Your task to perform on an android device: toggle javascript in the chrome app Image 0: 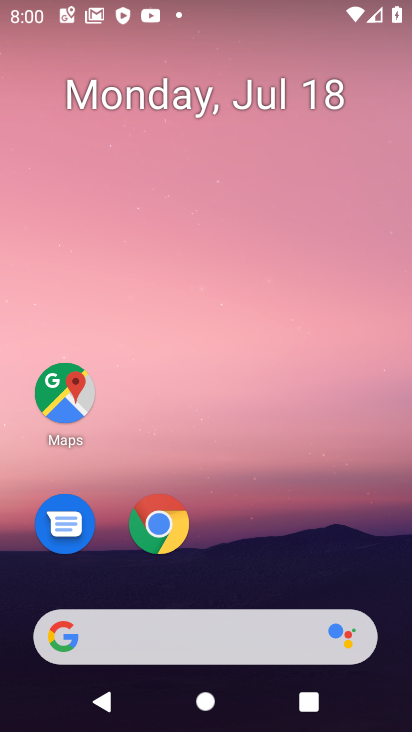
Step 0: click (169, 521)
Your task to perform on an android device: toggle javascript in the chrome app Image 1: 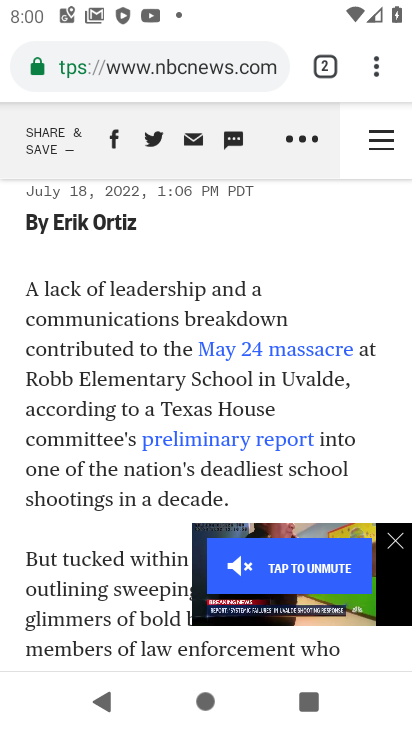
Step 1: click (376, 69)
Your task to perform on an android device: toggle javascript in the chrome app Image 2: 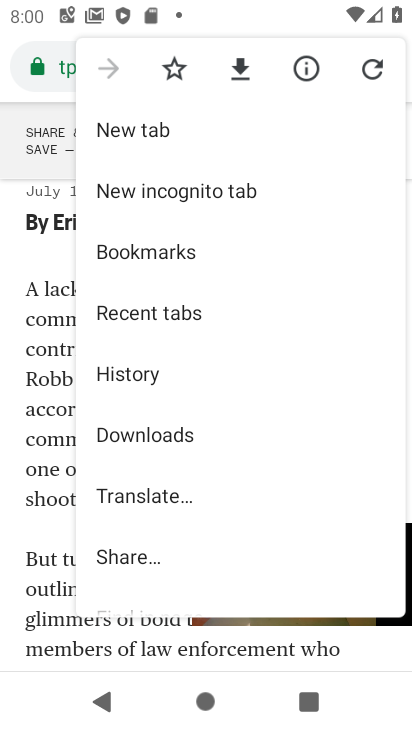
Step 2: drag from (226, 395) to (229, 193)
Your task to perform on an android device: toggle javascript in the chrome app Image 3: 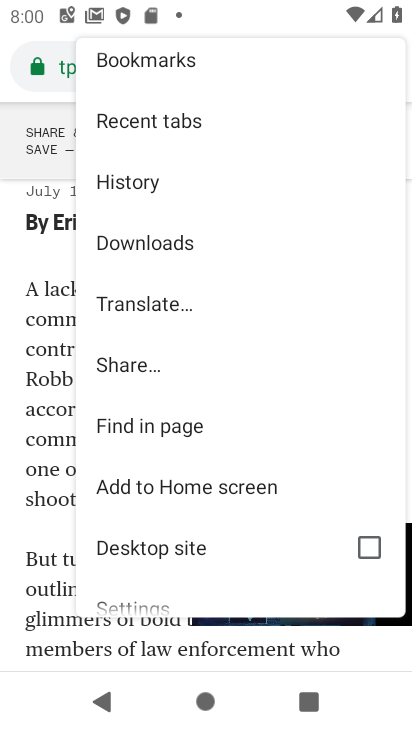
Step 3: drag from (223, 451) to (232, 207)
Your task to perform on an android device: toggle javascript in the chrome app Image 4: 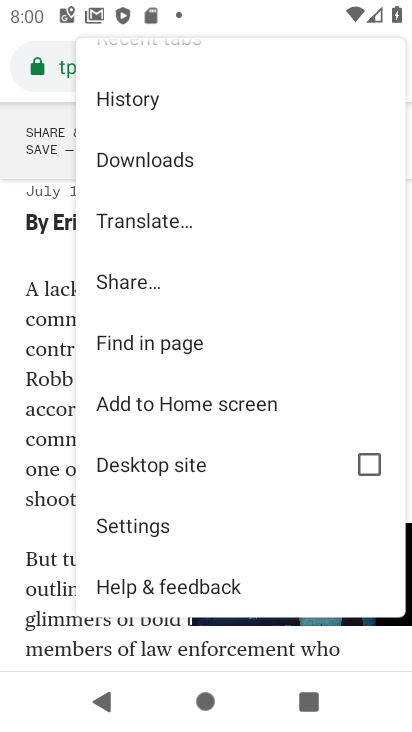
Step 4: click (156, 531)
Your task to perform on an android device: toggle javascript in the chrome app Image 5: 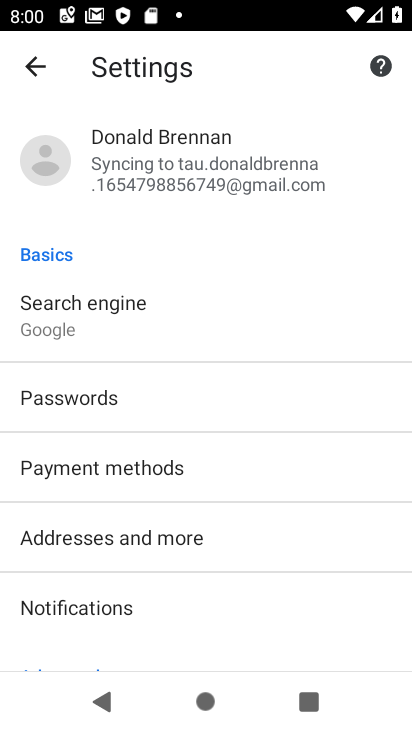
Step 5: drag from (229, 473) to (252, 226)
Your task to perform on an android device: toggle javascript in the chrome app Image 6: 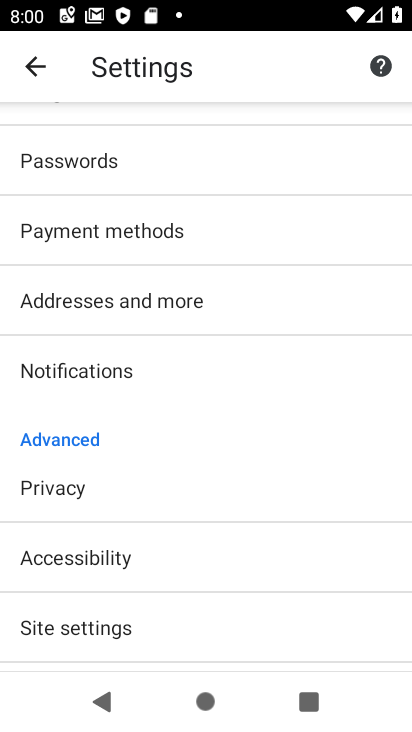
Step 6: click (133, 621)
Your task to perform on an android device: toggle javascript in the chrome app Image 7: 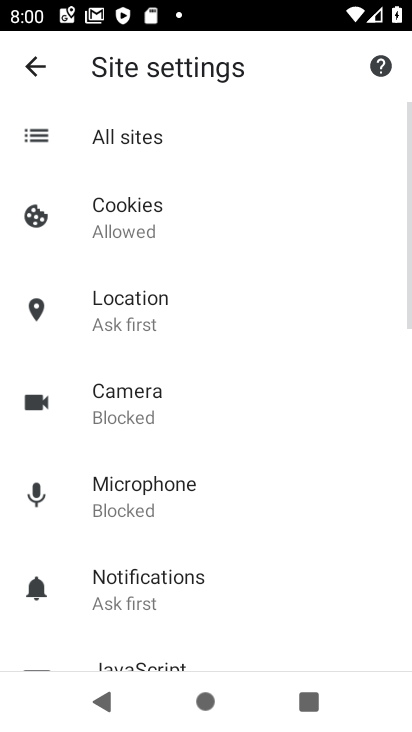
Step 7: drag from (269, 499) to (302, 315)
Your task to perform on an android device: toggle javascript in the chrome app Image 8: 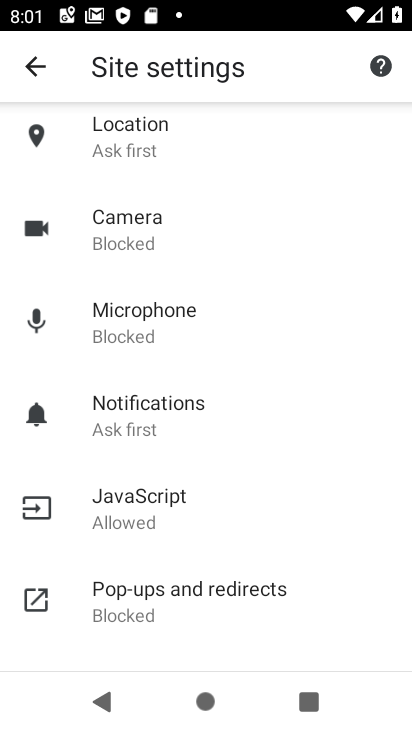
Step 8: click (147, 515)
Your task to perform on an android device: toggle javascript in the chrome app Image 9: 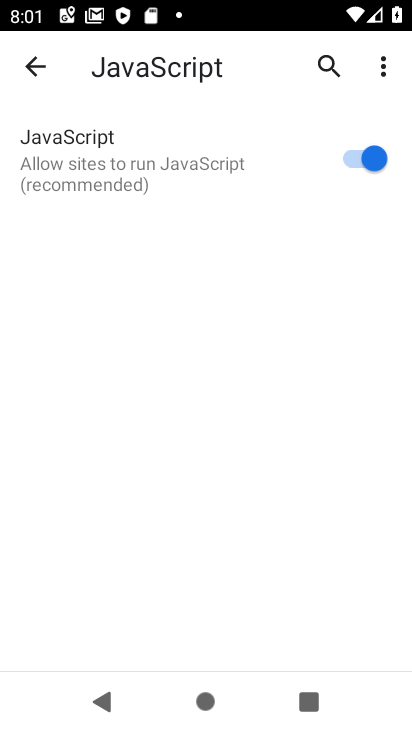
Step 9: click (365, 159)
Your task to perform on an android device: toggle javascript in the chrome app Image 10: 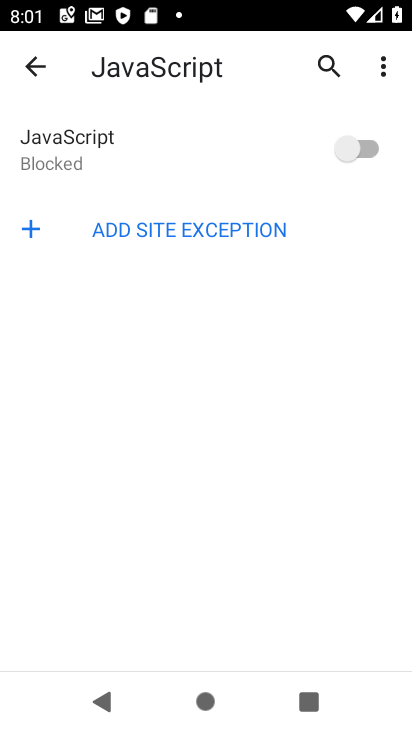
Step 10: task complete